Your task to perform on an android device: Play the last video I watched on Youtube Image 0: 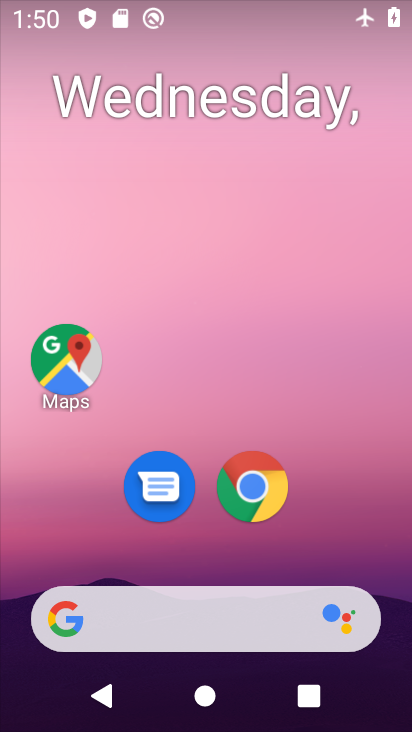
Step 0: drag from (279, 648) to (327, 150)
Your task to perform on an android device: Play the last video I watched on Youtube Image 1: 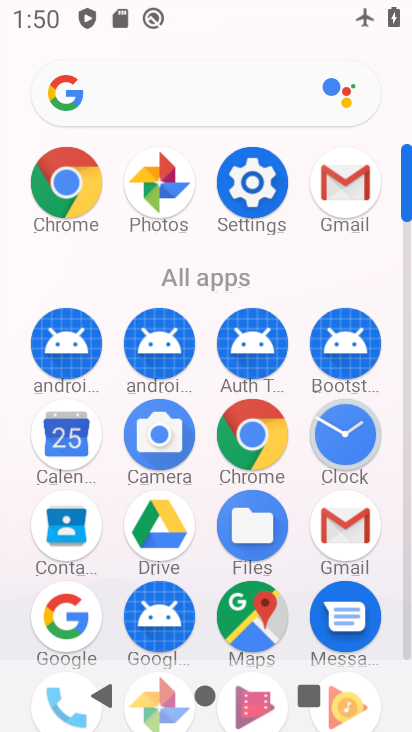
Step 1: drag from (195, 526) to (216, 191)
Your task to perform on an android device: Play the last video I watched on Youtube Image 2: 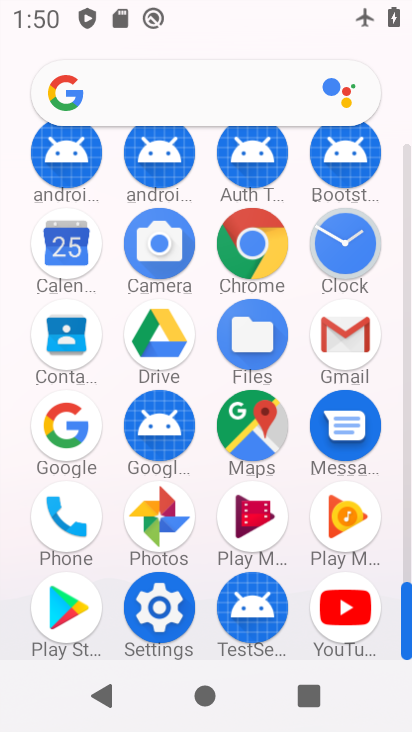
Step 2: click (328, 615)
Your task to perform on an android device: Play the last video I watched on Youtube Image 3: 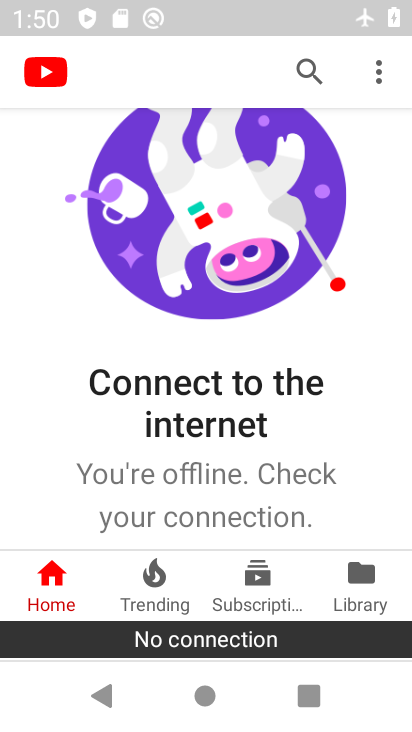
Step 3: task complete